Your task to perform on an android device: delete browsing data in the chrome app Image 0: 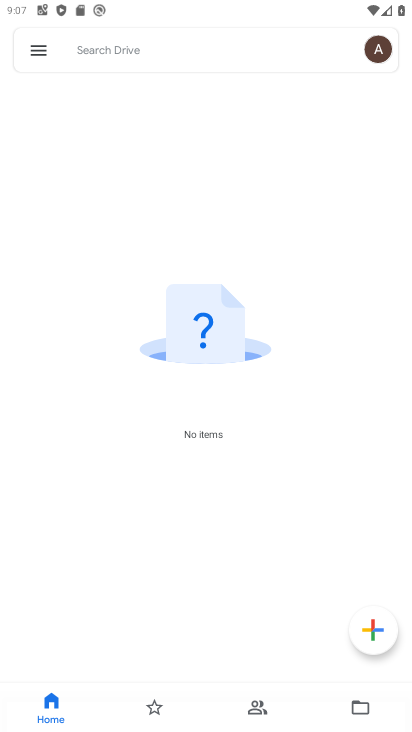
Step 0: drag from (215, 507) to (240, 223)
Your task to perform on an android device: delete browsing data in the chrome app Image 1: 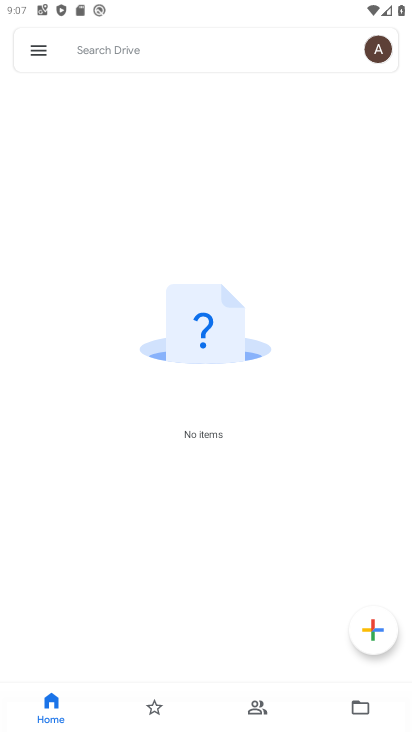
Step 1: press home button
Your task to perform on an android device: delete browsing data in the chrome app Image 2: 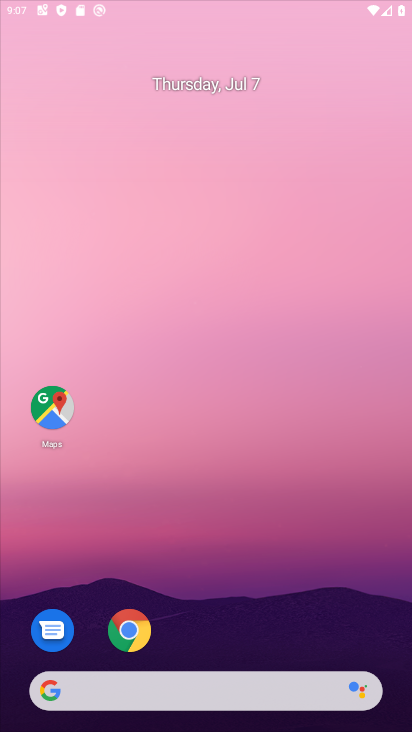
Step 2: drag from (244, 522) to (276, 191)
Your task to perform on an android device: delete browsing data in the chrome app Image 3: 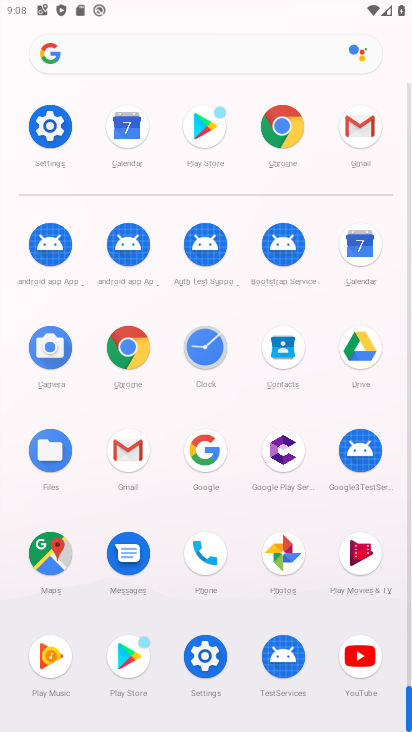
Step 3: click (285, 119)
Your task to perform on an android device: delete browsing data in the chrome app Image 4: 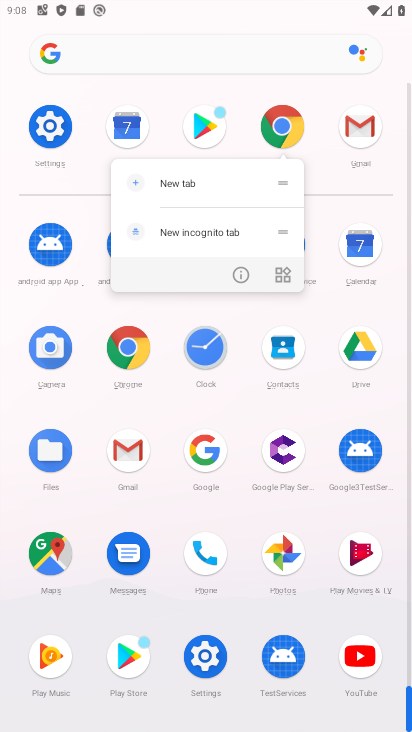
Step 4: click (248, 264)
Your task to perform on an android device: delete browsing data in the chrome app Image 5: 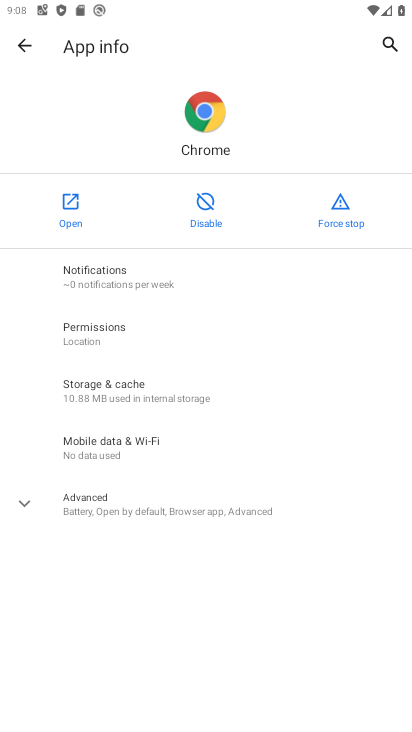
Step 5: click (70, 219)
Your task to perform on an android device: delete browsing data in the chrome app Image 6: 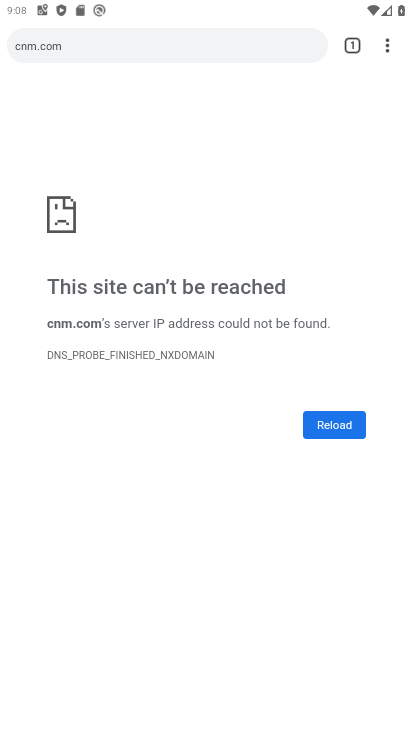
Step 6: click (395, 45)
Your task to perform on an android device: delete browsing data in the chrome app Image 7: 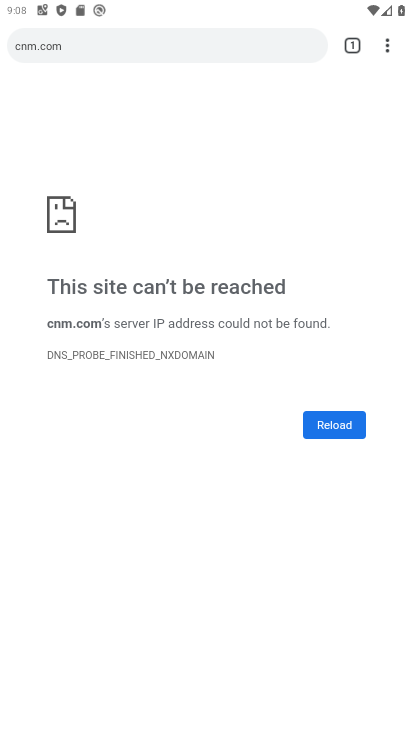
Step 7: drag from (385, 40) to (251, 258)
Your task to perform on an android device: delete browsing data in the chrome app Image 8: 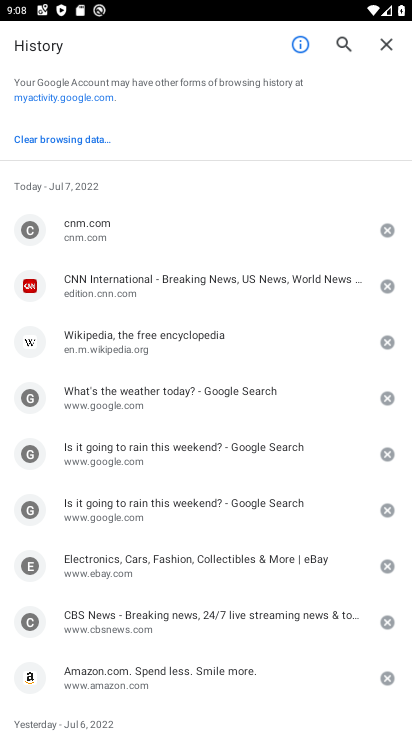
Step 8: drag from (213, 569) to (239, 163)
Your task to perform on an android device: delete browsing data in the chrome app Image 9: 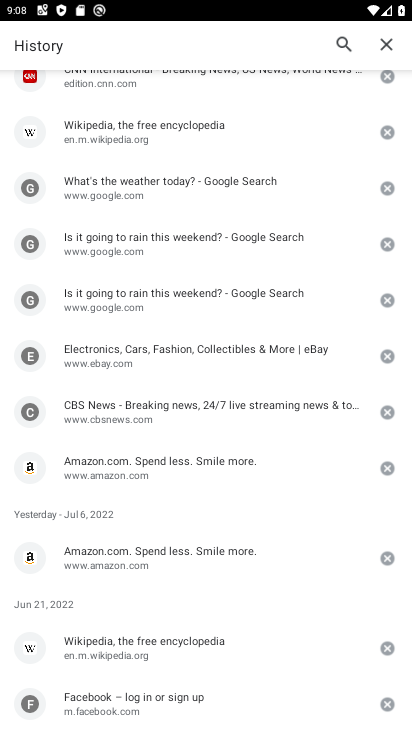
Step 9: drag from (235, 198) to (291, 706)
Your task to perform on an android device: delete browsing data in the chrome app Image 10: 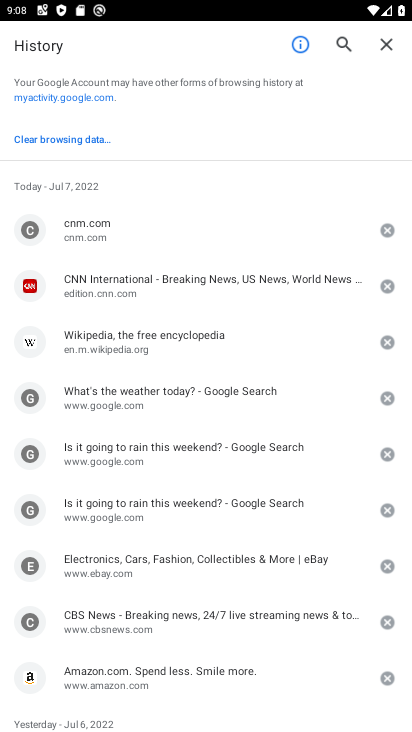
Step 10: click (27, 137)
Your task to perform on an android device: delete browsing data in the chrome app Image 11: 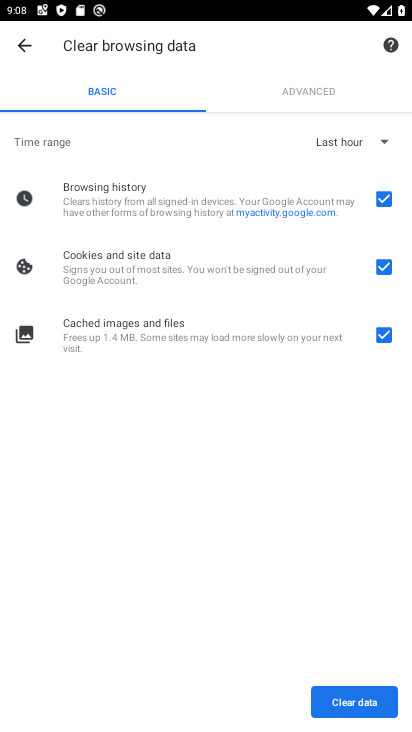
Step 11: click (347, 703)
Your task to perform on an android device: delete browsing data in the chrome app Image 12: 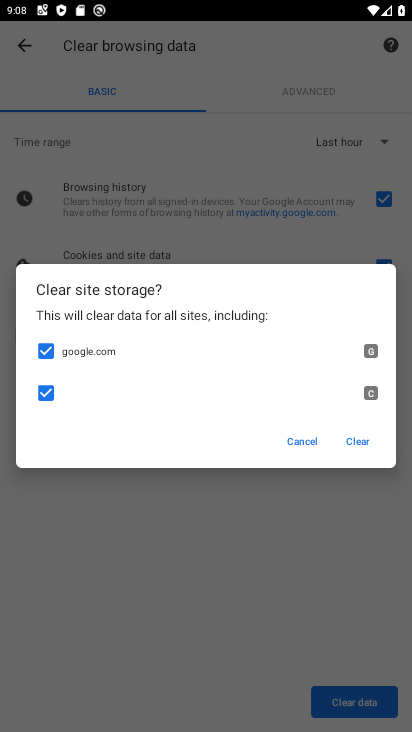
Step 12: click (351, 436)
Your task to perform on an android device: delete browsing data in the chrome app Image 13: 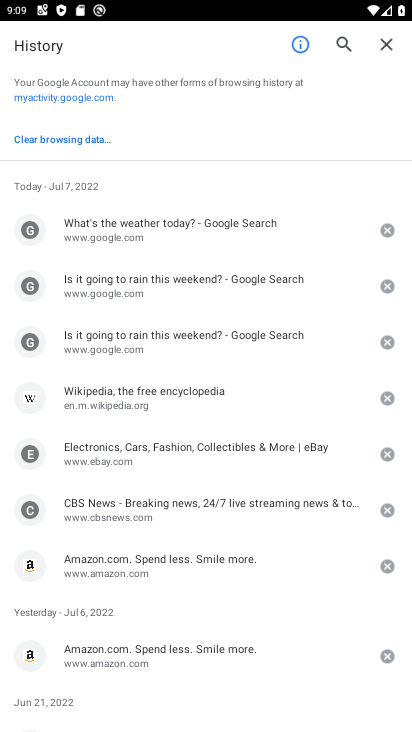
Step 13: click (21, 144)
Your task to perform on an android device: delete browsing data in the chrome app Image 14: 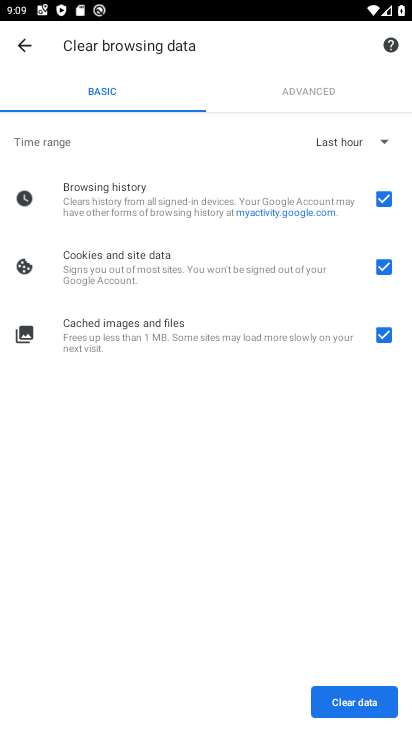
Step 14: click (353, 132)
Your task to perform on an android device: delete browsing data in the chrome app Image 15: 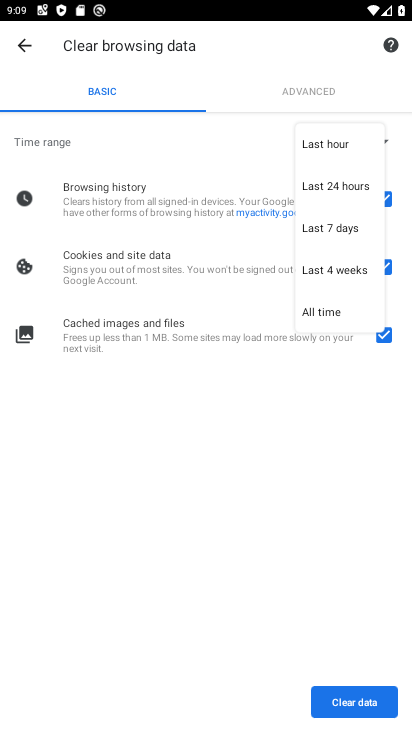
Step 15: click (322, 304)
Your task to perform on an android device: delete browsing data in the chrome app Image 16: 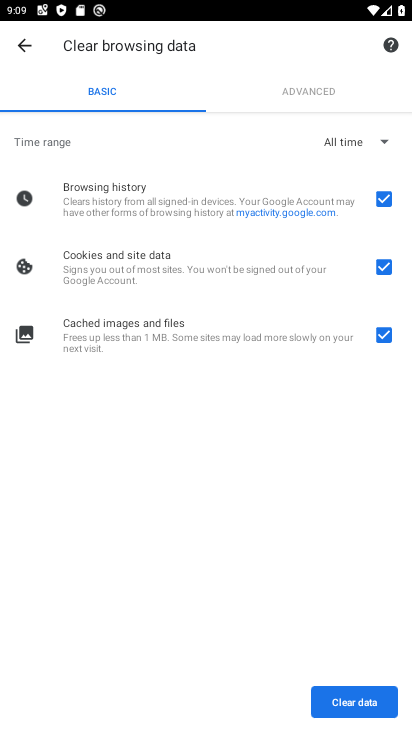
Step 16: click (360, 676)
Your task to perform on an android device: delete browsing data in the chrome app Image 17: 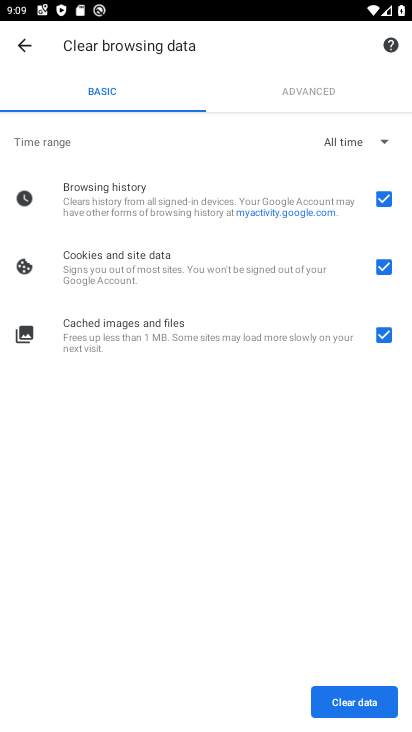
Step 17: click (358, 684)
Your task to perform on an android device: delete browsing data in the chrome app Image 18: 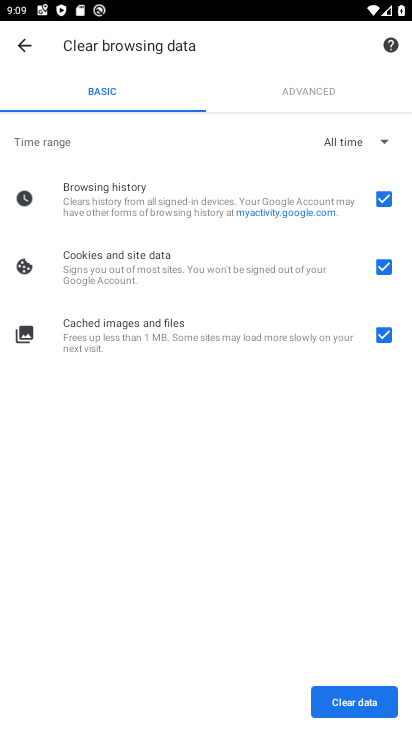
Step 18: click (352, 690)
Your task to perform on an android device: delete browsing data in the chrome app Image 19: 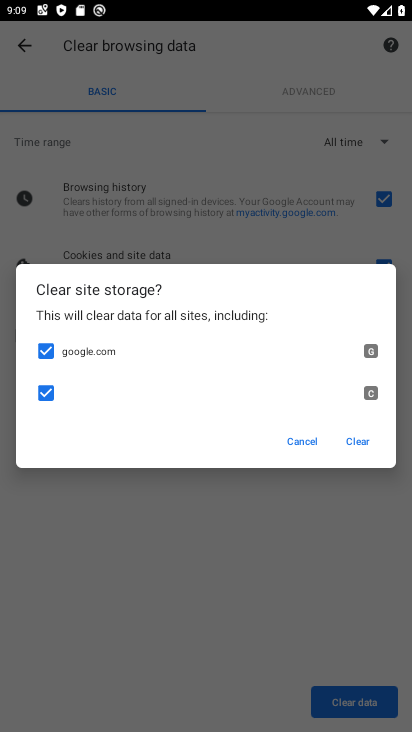
Step 19: click (352, 441)
Your task to perform on an android device: delete browsing data in the chrome app Image 20: 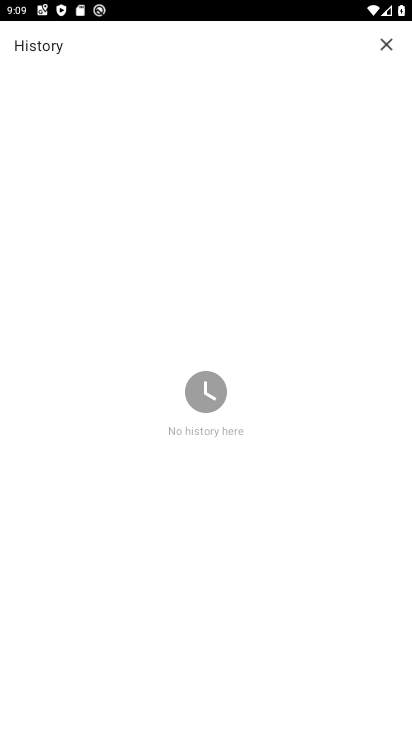
Step 20: drag from (219, 506) to (219, 269)
Your task to perform on an android device: delete browsing data in the chrome app Image 21: 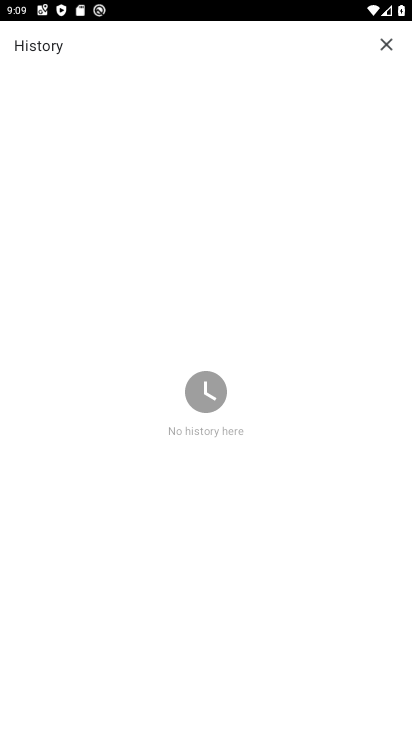
Step 21: click (142, 320)
Your task to perform on an android device: delete browsing data in the chrome app Image 22: 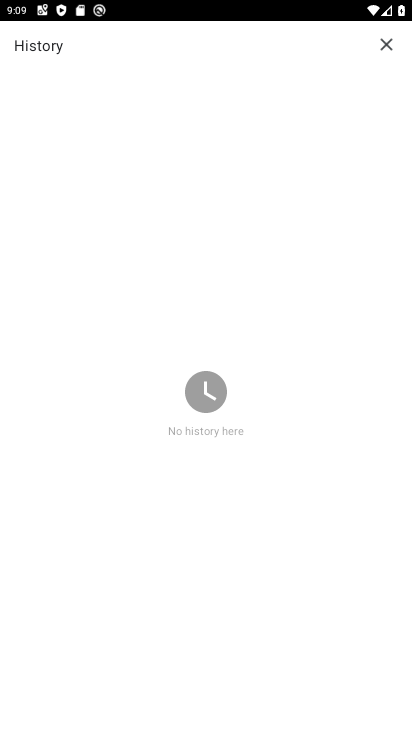
Step 22: task complete